Your task to perform on an android device: toggle sleep mode Image 0: 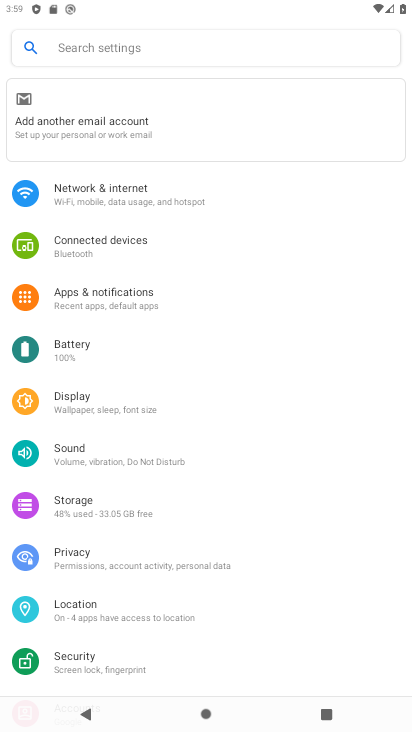
Step 0: task impossible